Your task to perform on an android device: Search for a 1/4" hex shank drill bit on Lowe's. Image 0: 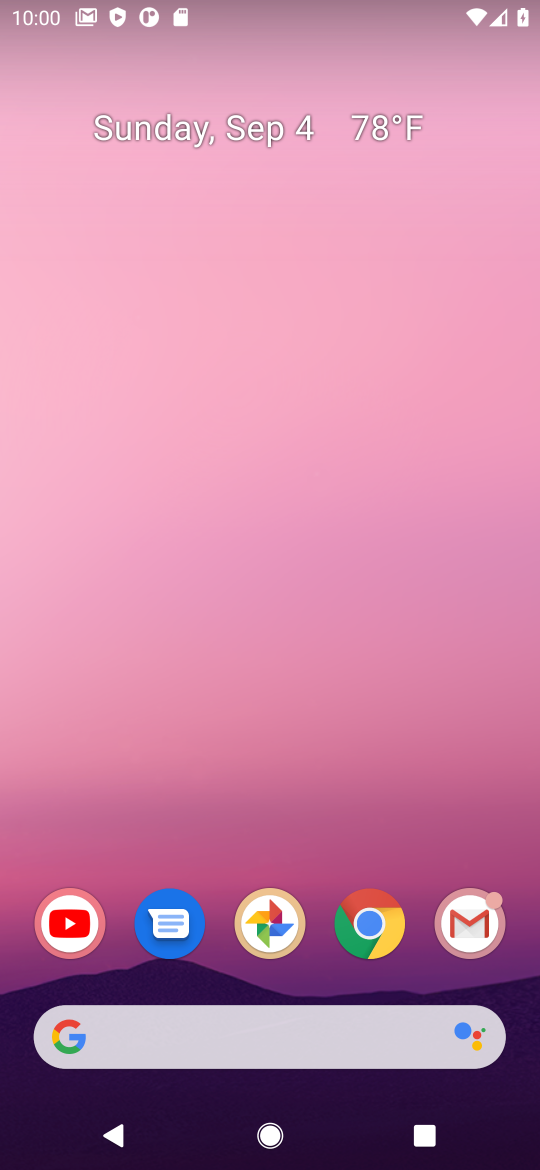
Step 0: click (374, 934)
Your task to perform on an android device: Search for a 1/4" hex shank drill bit on Lowe's. Image 1: 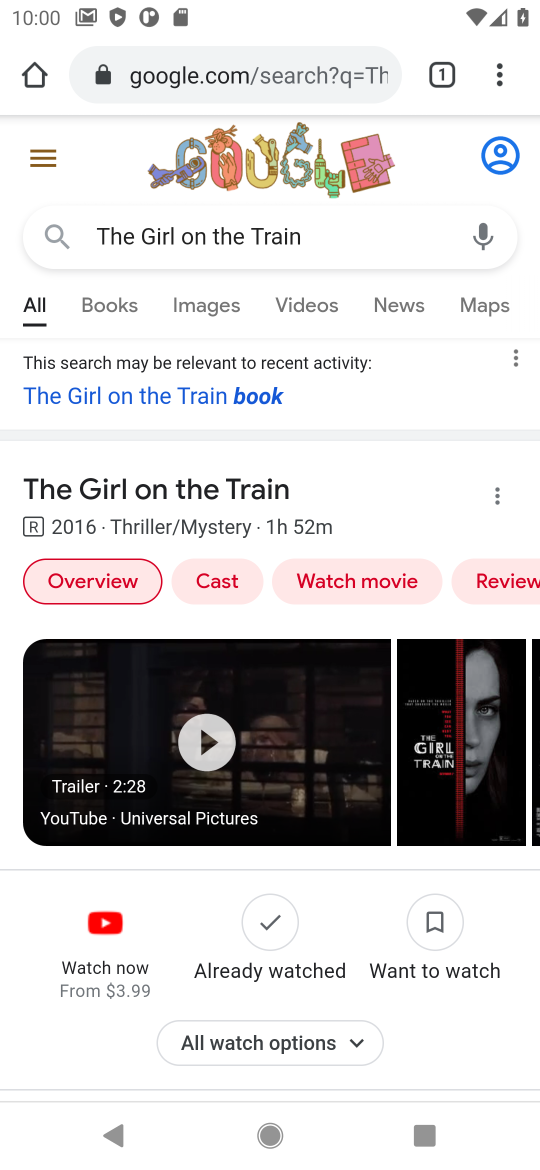
Step 1: click (170, 77)
Your task to perform on an android device: Search for a 1/4" hex shank drill bit on Lowe's. Image 2: 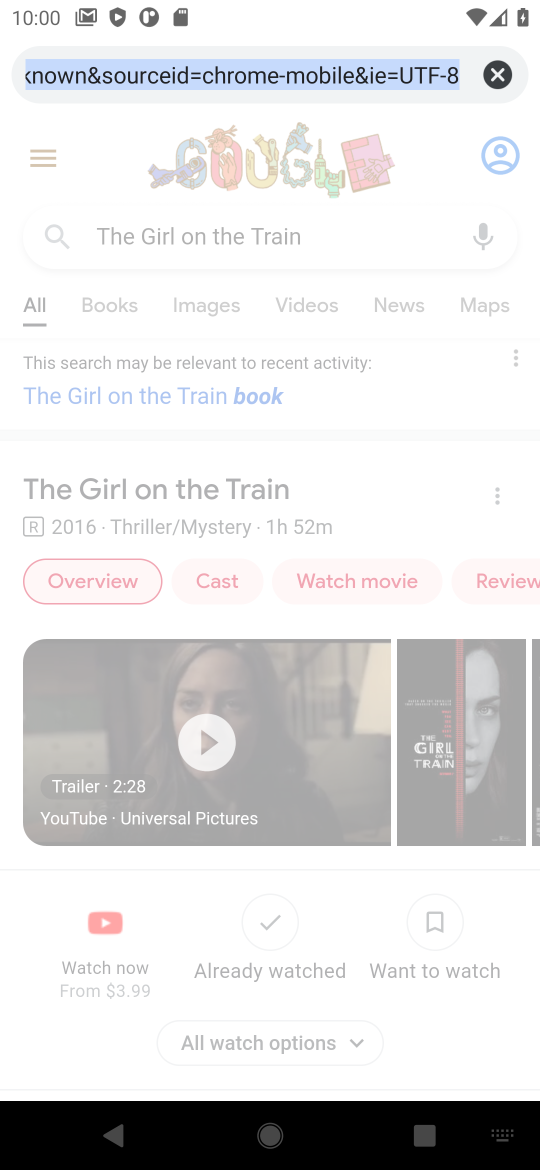
Step 2: click (489, 75)
Your task to perform on an android device: Search for a 1/4" hex shank drill bit on Lowe's. Image 3: 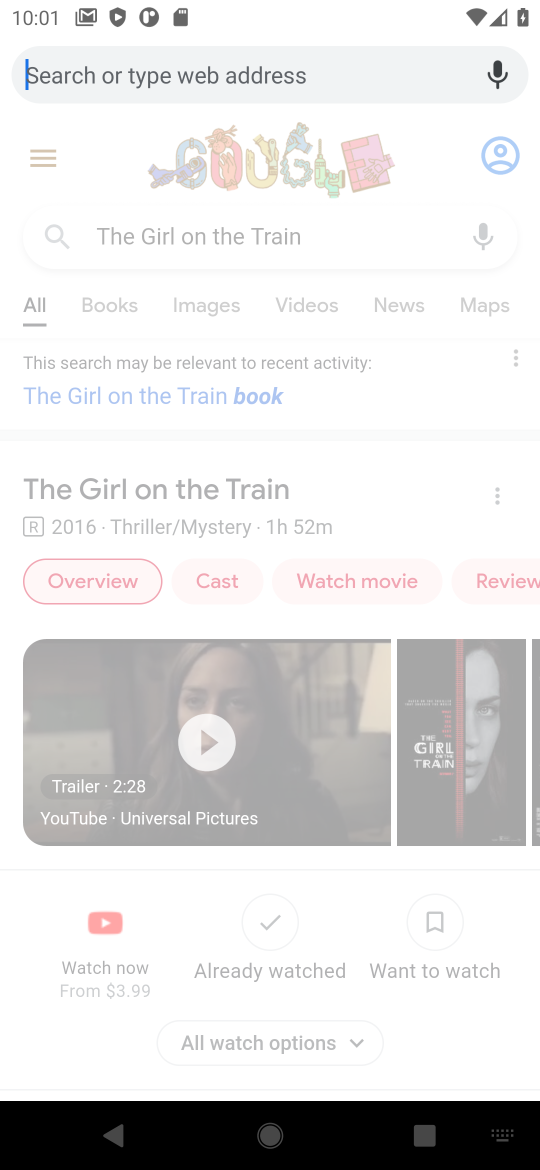
Step 3: type "1/4" hex shank drill bit on Lowe's"
Your task to perform on an android device: Search for a 1/4" hex shank drill bit on Lowe's. Image 4: 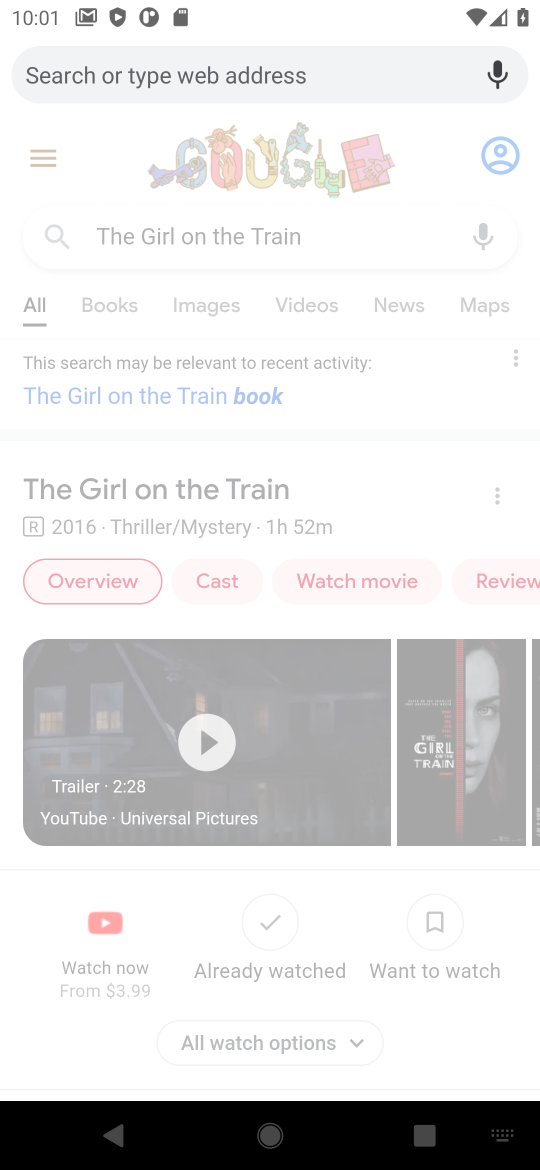
Step 4: type "1/4" hex shank drill bit on Lowe's"
Your task to perform on an android device: Search for a 1/4" hex shank drill bit on Lowe's. Image 5: 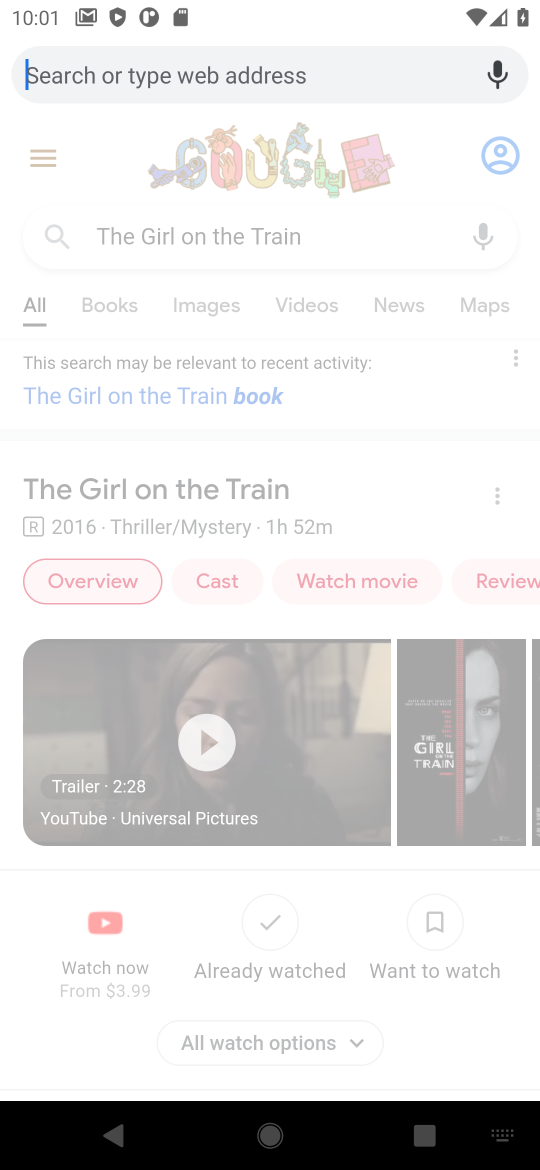
Step 5: click (535, 524)
Your task to perform on an android device: Search for a 1/4" hex shank drill bit on Lowe's. Image 6: 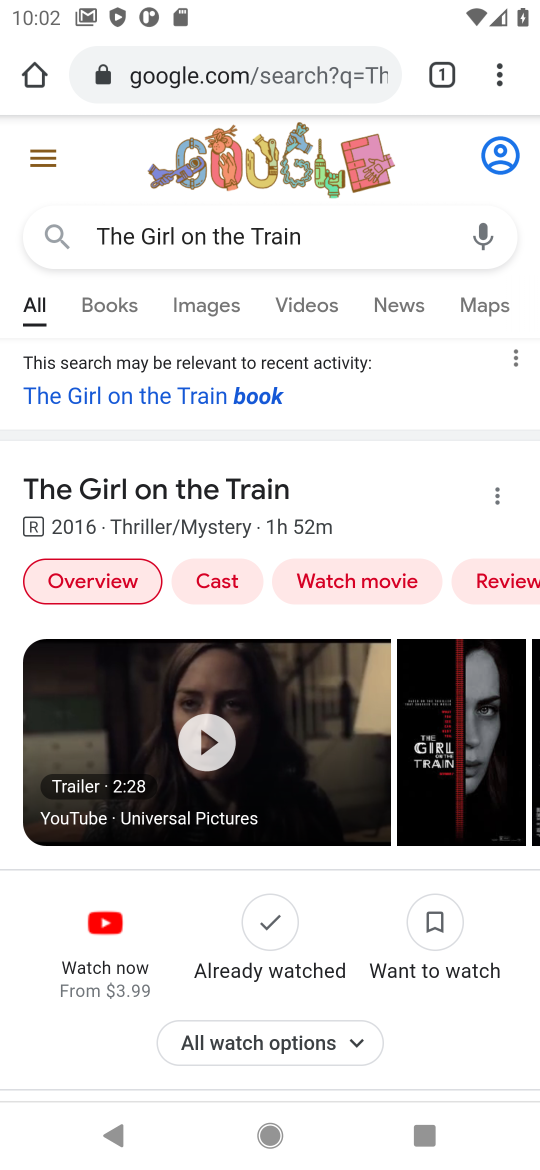
Step 6: task complete